Your task to perform on an android device: change the upload size in google photos Image 0: 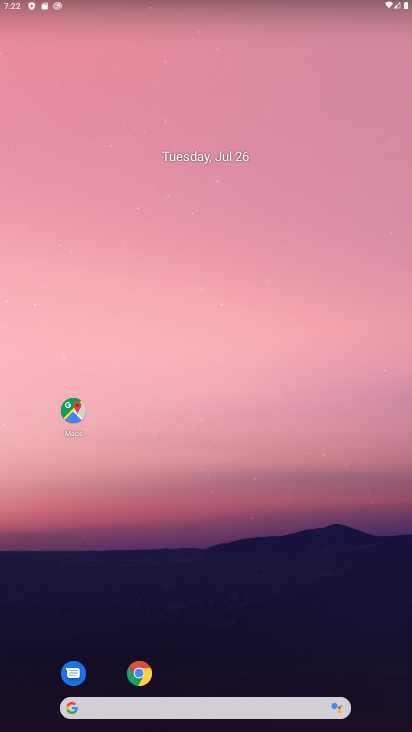
Step 0: drag from (345, 618) to (203, 15)
Your task to perform on an android device: change the upload size in google photos Image 1: 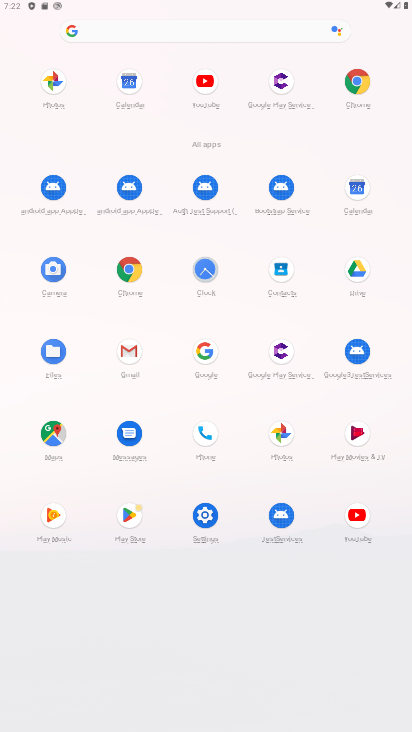
Step 1: click (283, 437)
Your task to perform on an android device: change the upload size in google photos Image 2: 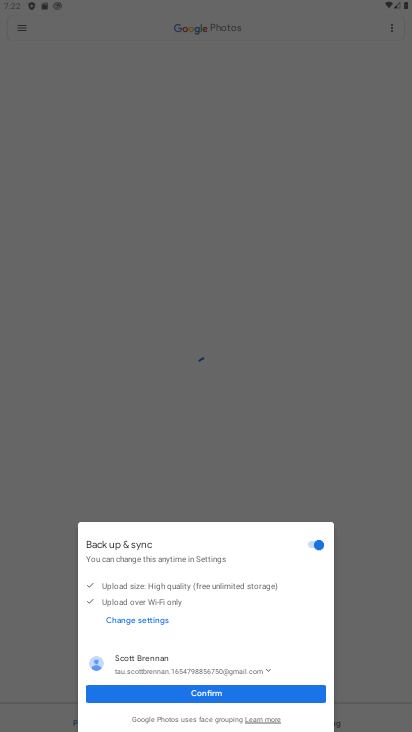
Step 2: click (223, 692)
Your task to perform on an android device: change the upload size in google photos Image 3: 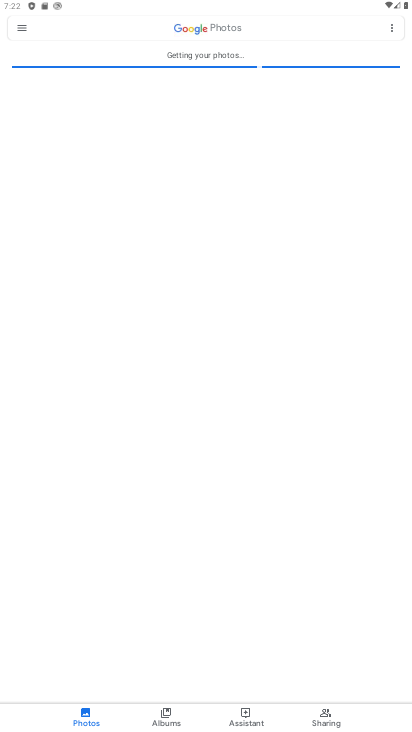
Step 3: click (21, 29)
Your task to perform on an android device: change the upload size in google photos Image 4: 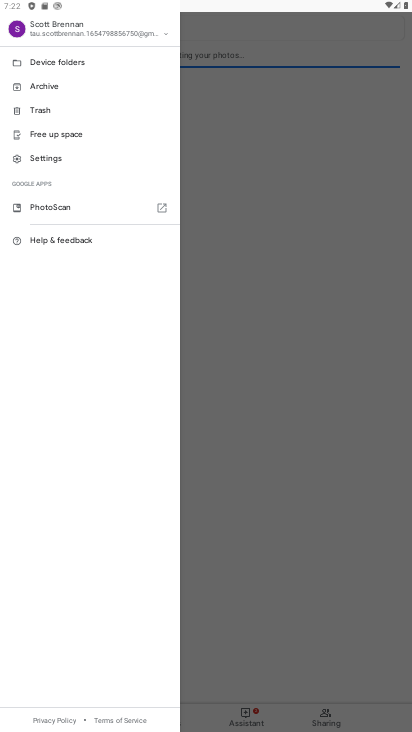
Step 4: click (44, 162)
Your task to perform on an android device: change the upload size in google photos Image 5: 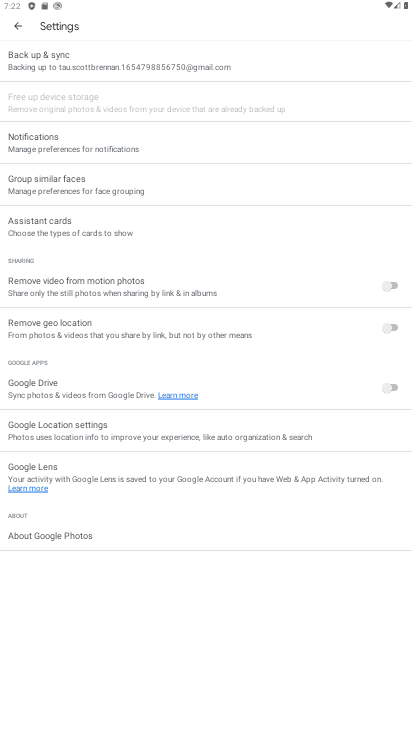
Step 5: click (106, 64)
Your task to perform on an android device: change the upload size in google photos Image 6: 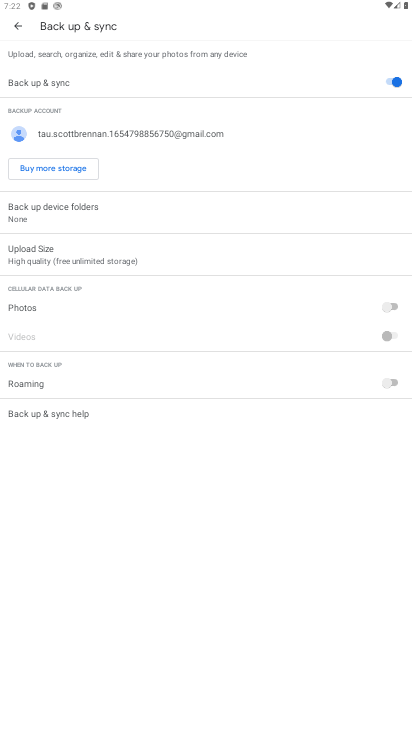
Step 6: click (81, 258)
Your task to perform on an android device: change the upload size in google photos Image 7: 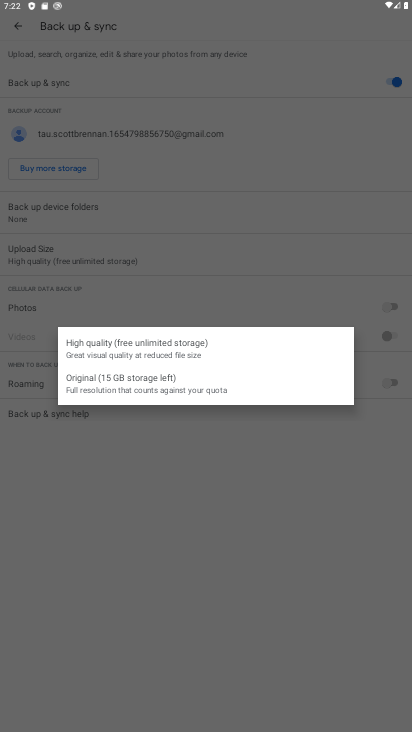
Step 7: click (125, 393)
Your task to perform on an android device: change the upload size in google photos Image 8: 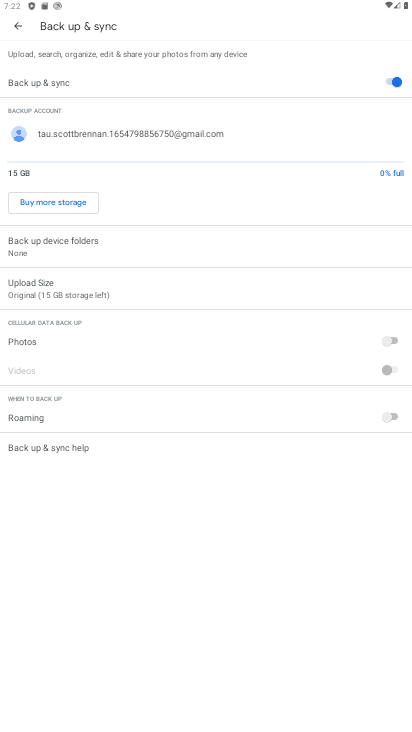
Step 8: task complete